Your task to perform on an android device: add a label to a message in the gmail app Image 0: 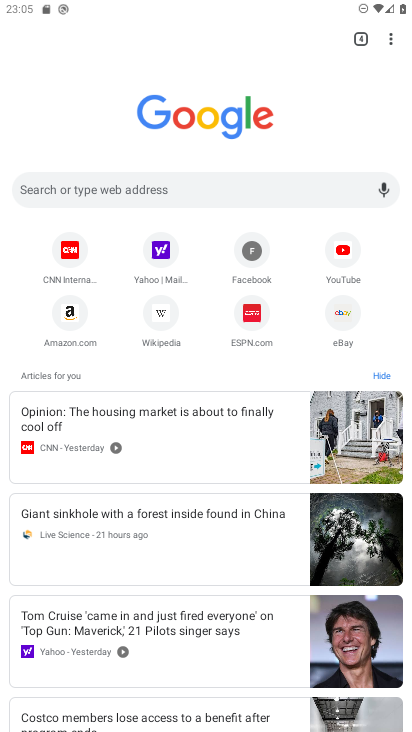
Step 0: press home button
Your task to perform on an android device: add a label to a message in the gmail app Image 1: 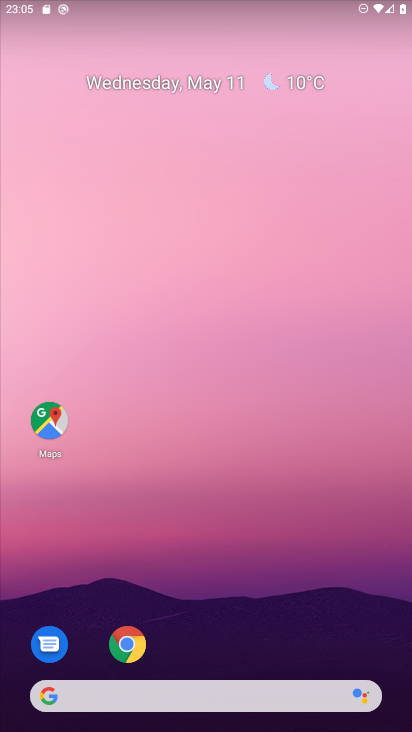
Step 1: click (369, 611)
Your task to perform on an android device: add a label to a message in the gmail app Image 2: 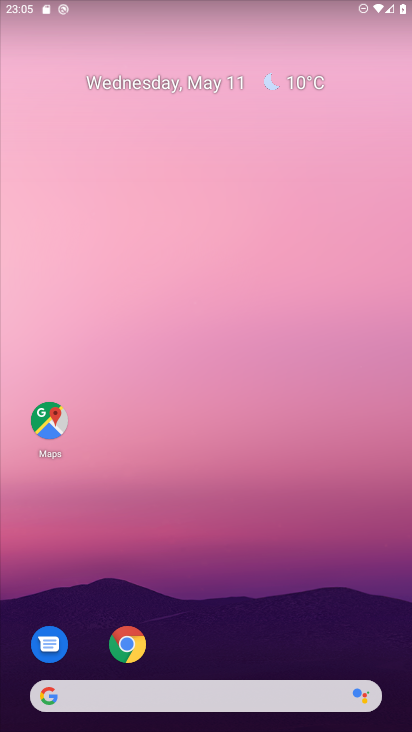
Step 2: drag from (369, 611) to (291, 84)
Your task to perform on an android device: add a label to a message in the gmail app Image 3: 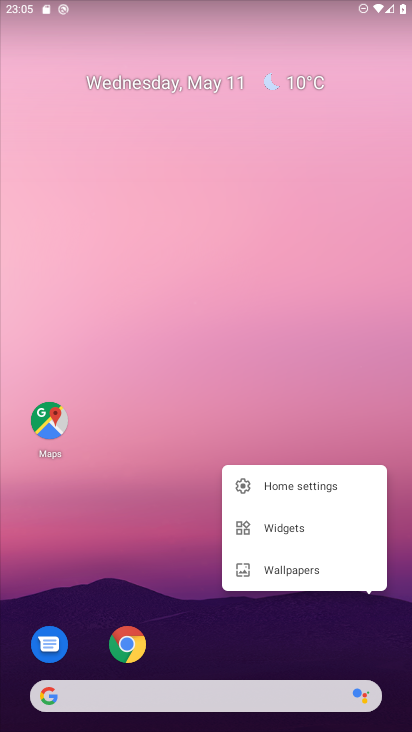
Step 3: click (390, 396)
Your task to perform on an android device: add a label to a message in the gmail app Image 4: 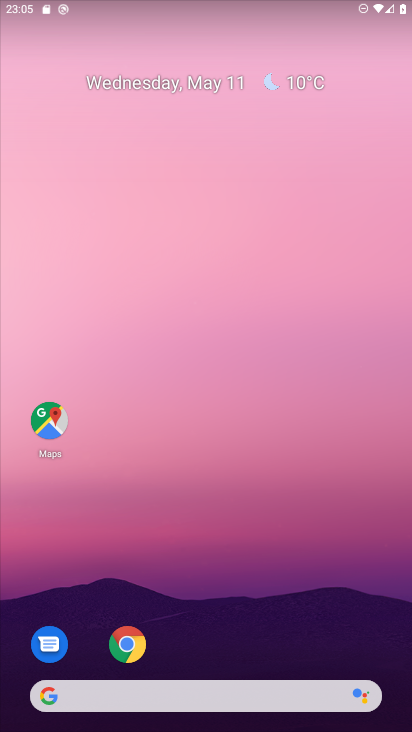
Step 4: drag from (341, 631) to (297, 162)
Your task to perform on an android device: add a label to a message in the gmail app Image 5: 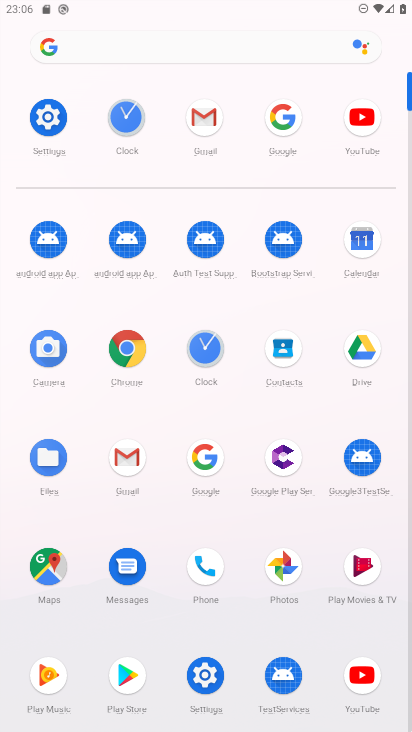
Step 5: click (199, 127)
Your task to perform on an android device: add a label to a message in the gmail app Image 6: 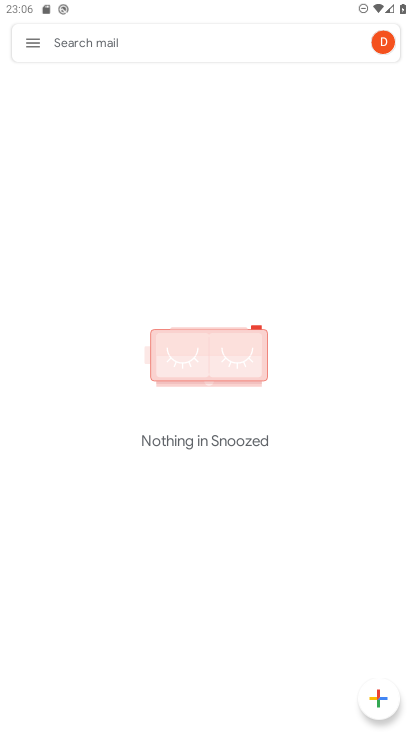
Step 6: click (40, 47)
Your task to perform on an android device: add a label to a message in the gmail app Image 7: 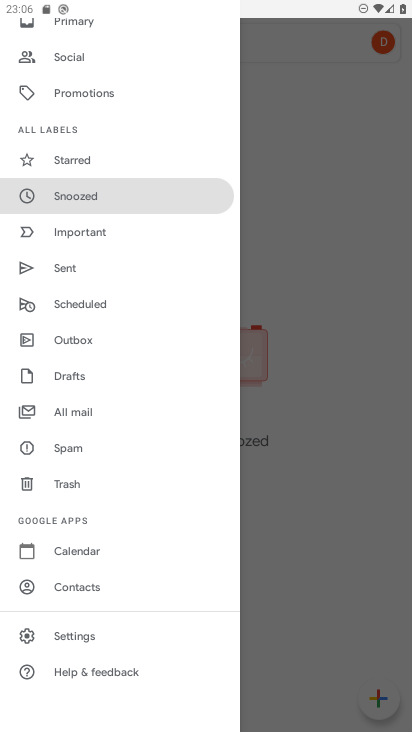
Step 7: click (86, 412)
Your task to perform on an android device: add a label to a message in the gmail app Image 8: 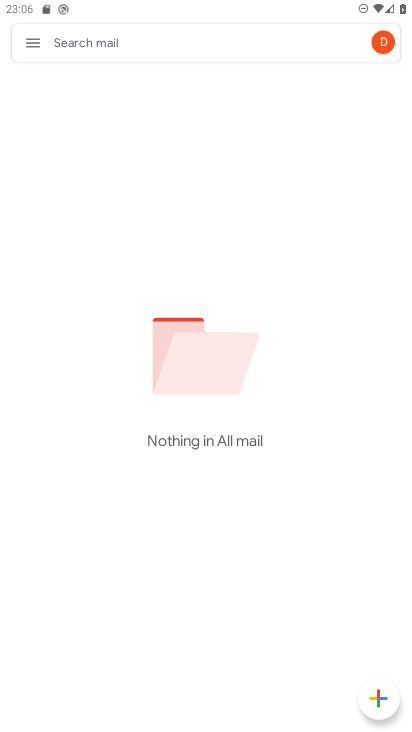
Step 8: task complete